Your task to perform on an android device: uninstall "Google Drive" Image 0: 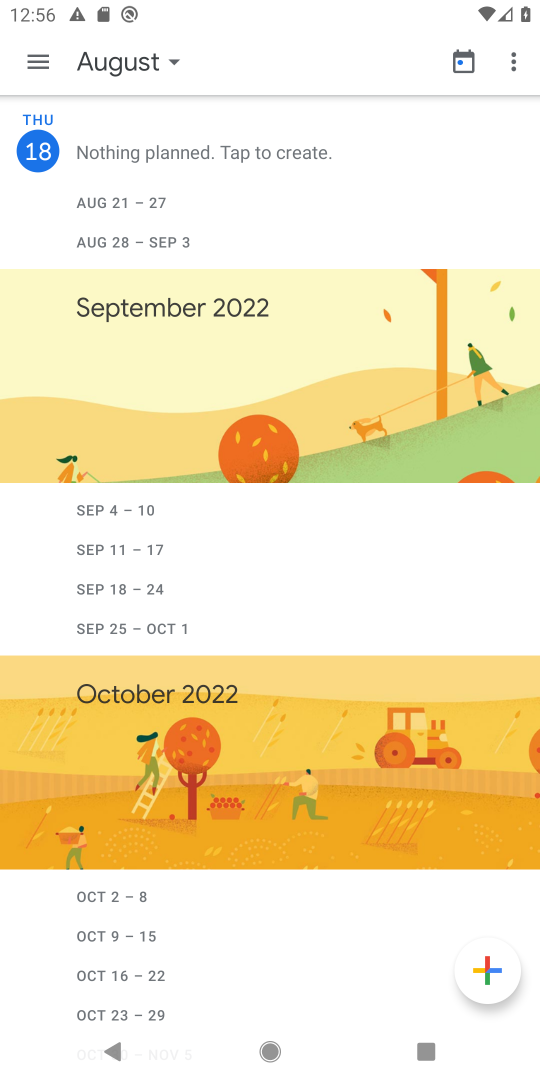
Step 0: press home button
Your task to perform on an android device: uninstall "Google Drive" Image 1: 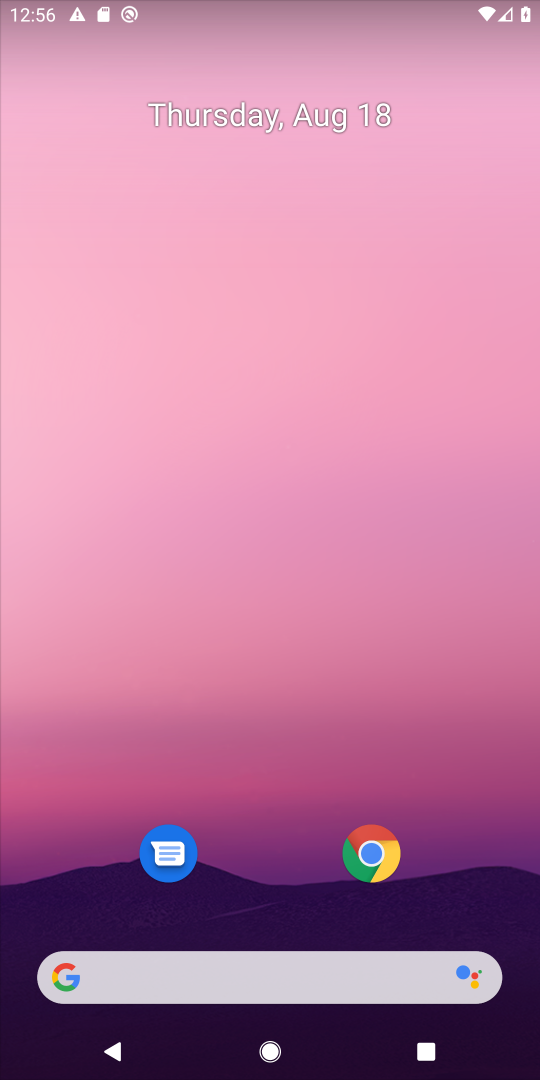
Step 1: drag from (338, 1010) to (393, 290)
Your task to perform on an android device: uninstall "Google Drive" Image 2: 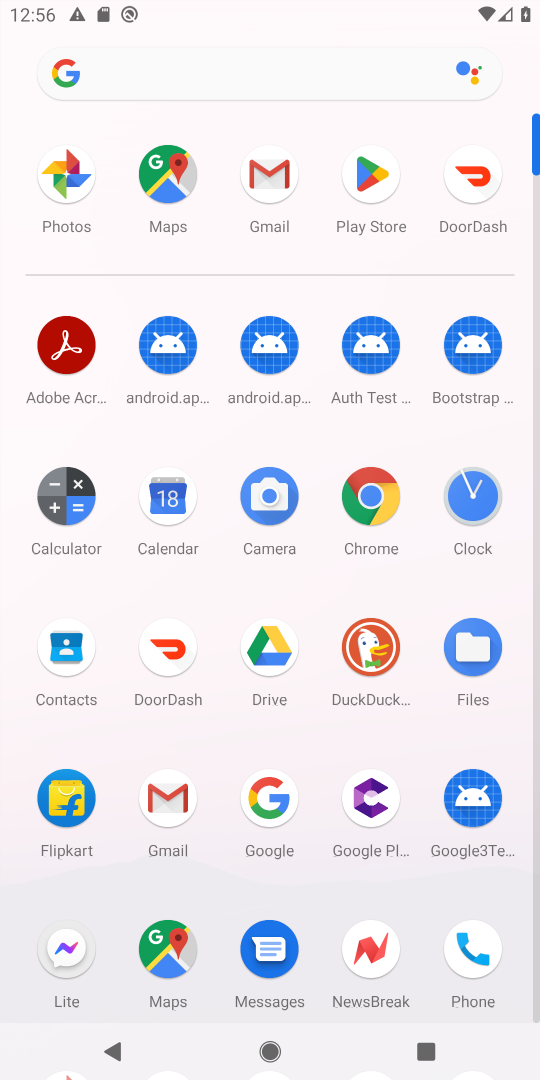
Step 2: click (265, 680)
Your task to perform on an android device: uninstall "Google Drive" Image 3: 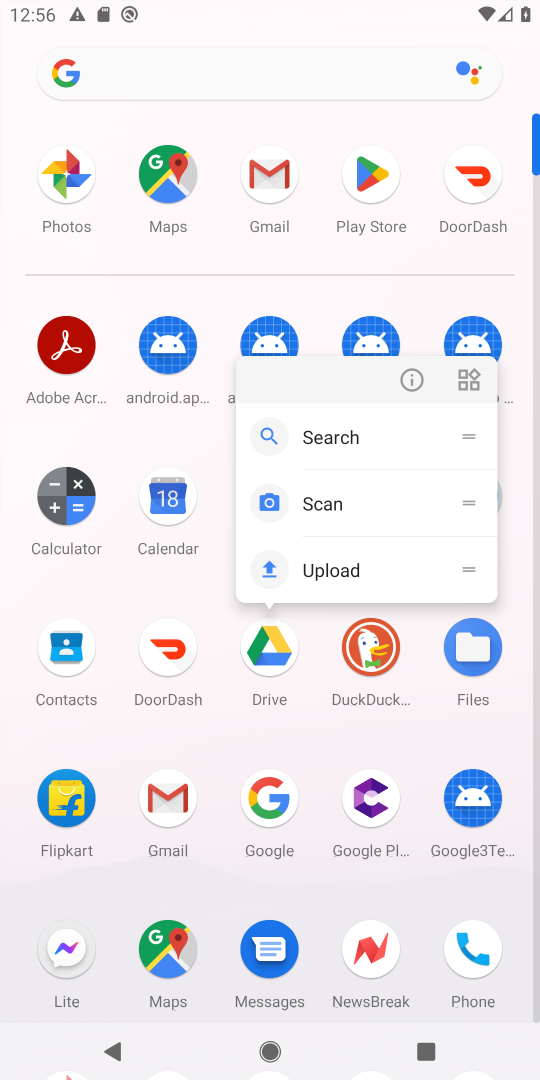
Step 3: click (418, 385)
Your task to perform on an android device: uninstall "Google Drive" Image 4: 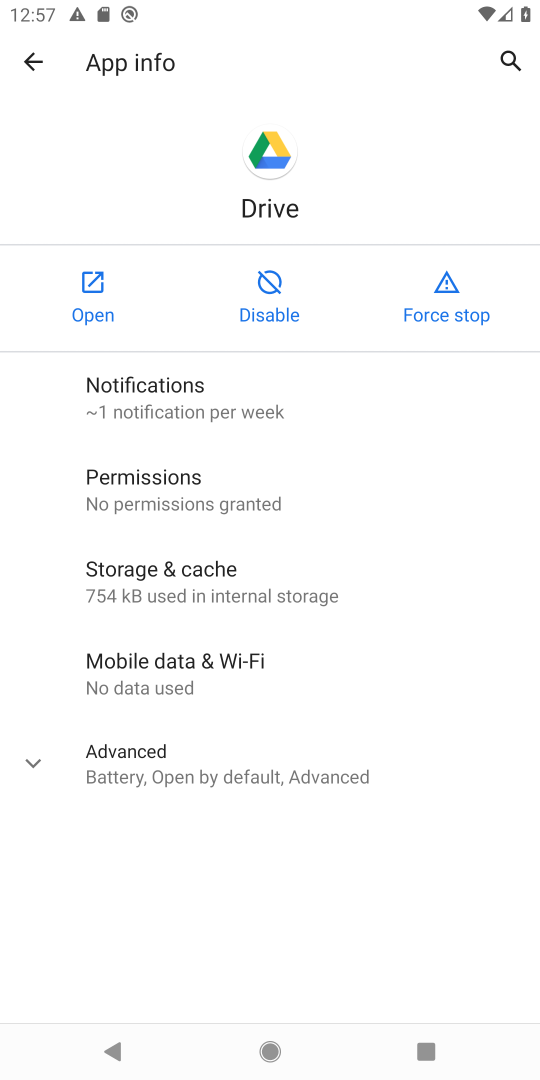
Step 4: task complete